Your task to perform on an android device: Open the stopwatch Image 0: 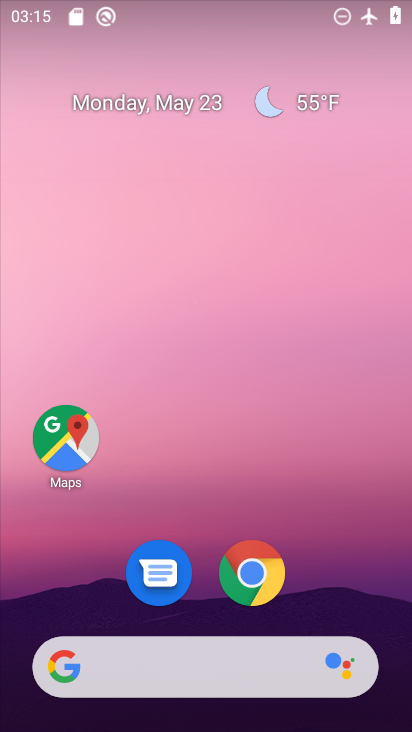
Step 0: drag from (336, 577) to (263, 2)
Your task to perform on an android device: Open the stopwatch Image 1: 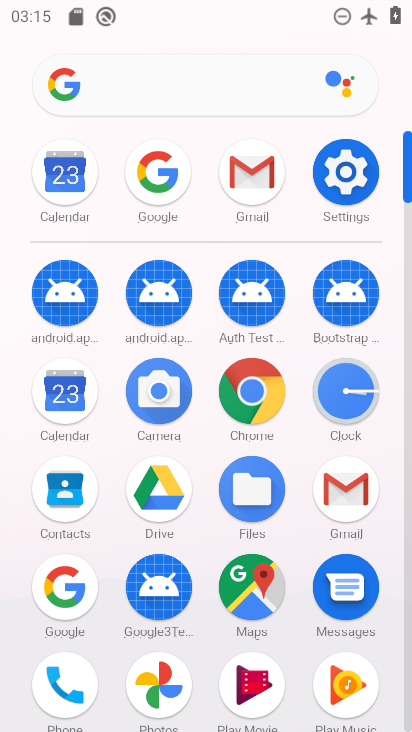
Step 1: click (343, 390)
Your task to perform on an android device: Open the stopwatch Image 2: 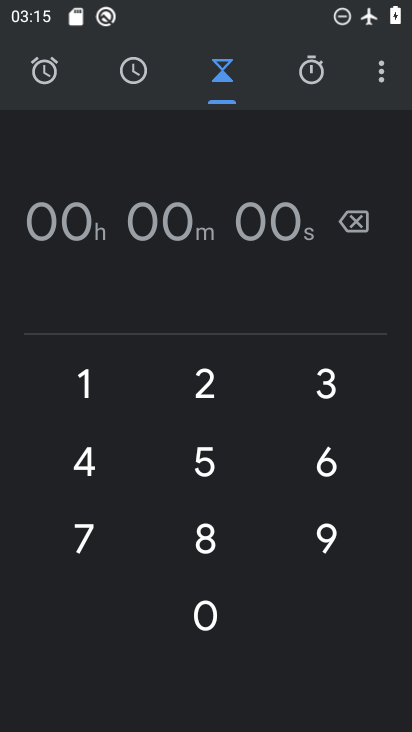
Step 2: click (314, 71)
Your task to perform on an android device: Open the stopwatch Image 3: 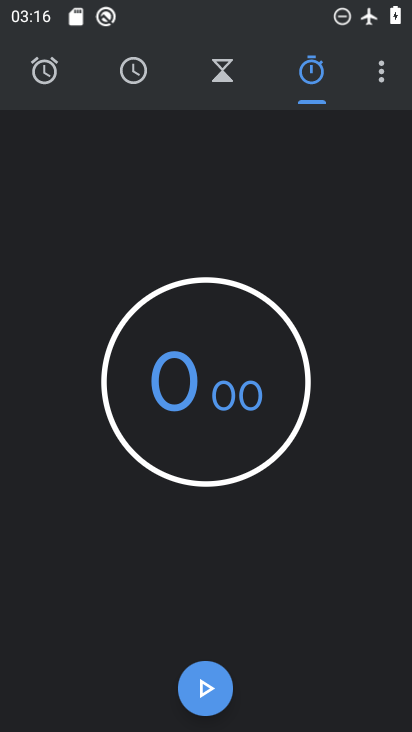
Step 3: click (204, 697)
Your task to perform on an android device: Open the stopwatch Image 4: 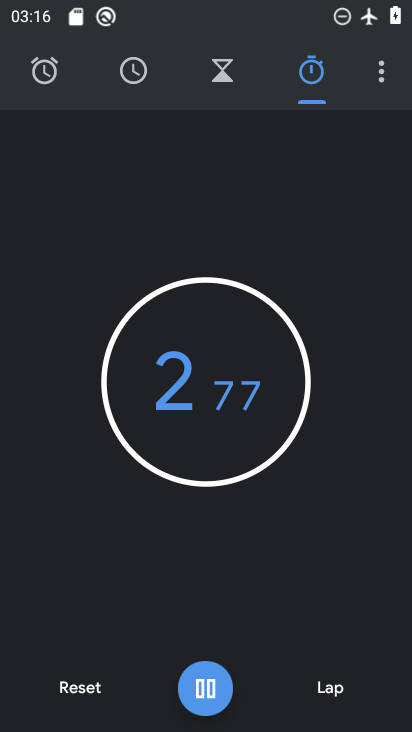
Step 4: task complete